Your task to perform on an android device: open a new tab in the chrome app Image 0: 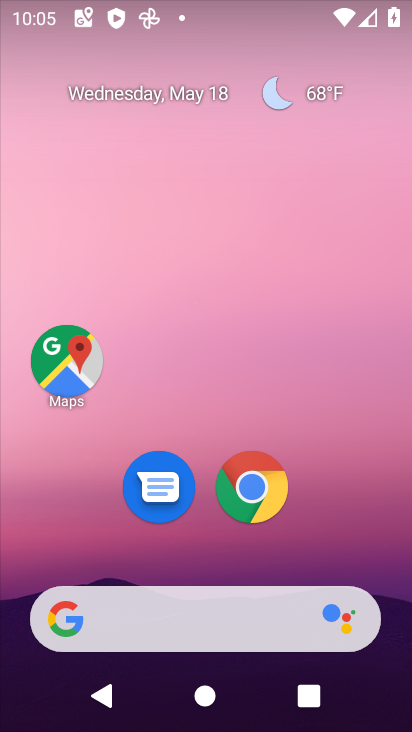
Step 0: drag from (322, 535) to (311, 148)
Your task to perform on an android device: open a new tab in the chrome app Image 1: 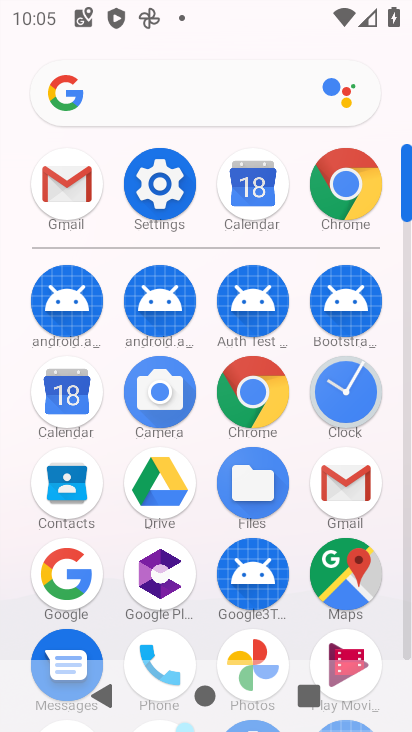
Step 1: click (239, 403)
Your task to perform on an android device: open a new tab in the chrome app Image 2: 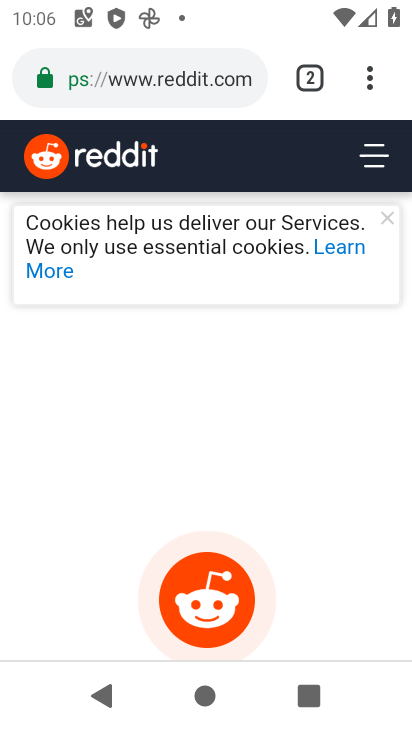
Step 2: click (303, 79)
Your task to perform on an android device: open a new tab in the chrome app Image 3: 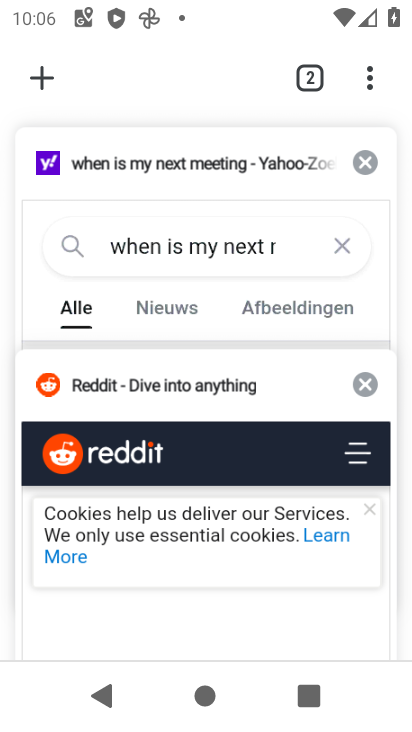
Step 3: click (39, 78)
Your task to perform on an android device: open a new tab in the chrome app Image 4: 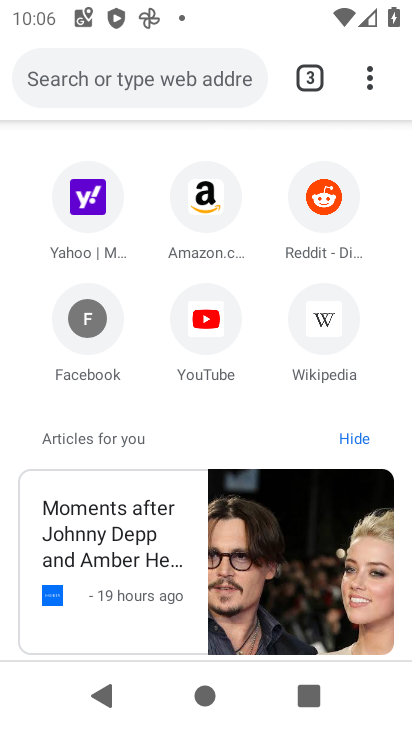
Step 4: task complete